Your task to perform on an android device: set the timer Image 0: 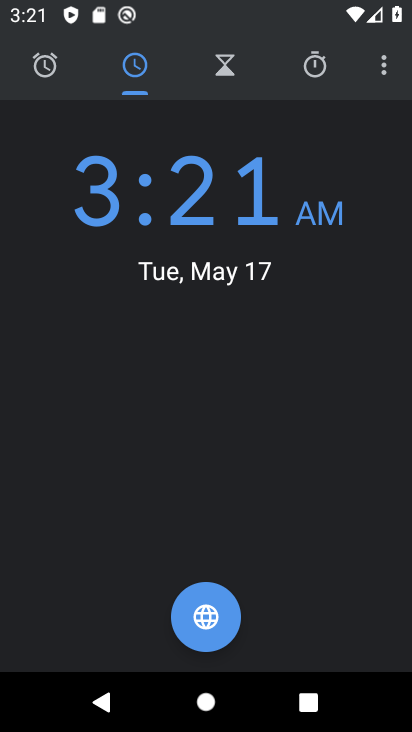
Step 0: click (239, 73)
Your task to perform on an android device: set the timer Image 1: 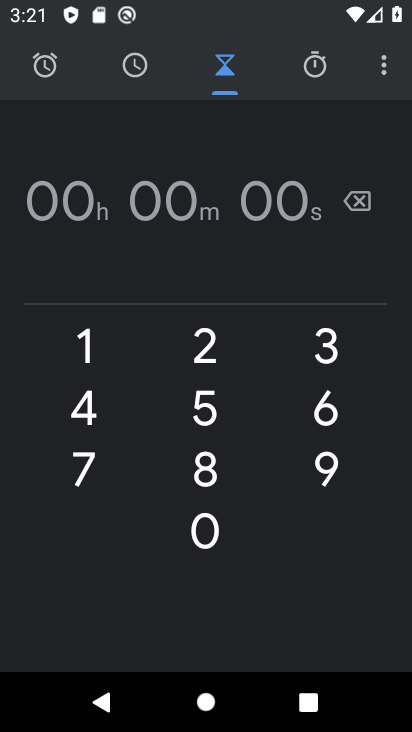
Step 1: click (209, 340)
Your task to perform on an android device: set the timer Image 2: 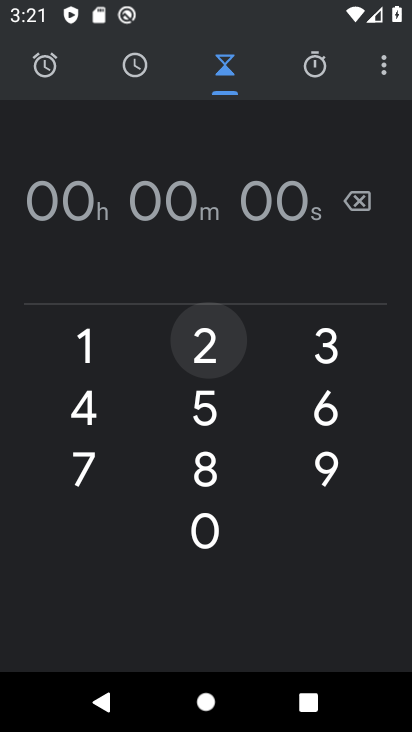
Step 2: click (209, 339)
Your task to perform on an android device: set the timer Image 3: 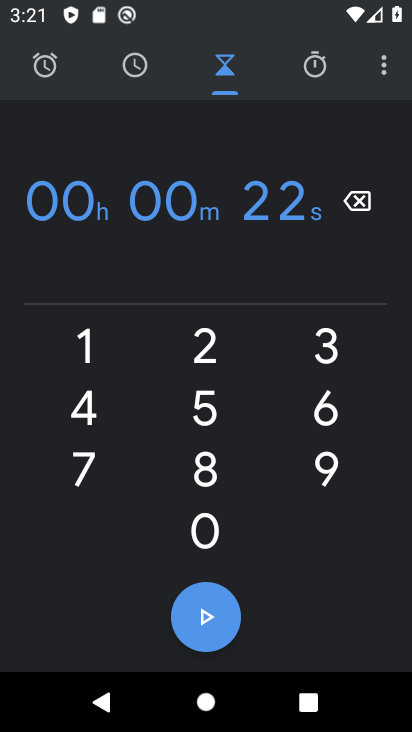
Step 3: click (211, 644)
Your task to perform on an android device: set the timer Image 4: 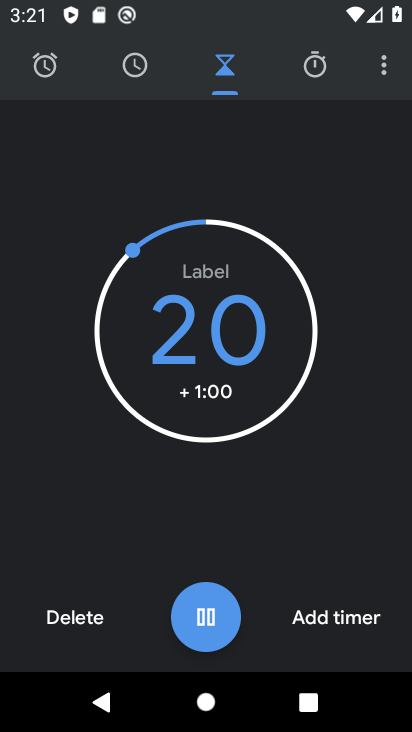
Step 4: task complete